Your task to perform on an android device: Open maps Image 0: 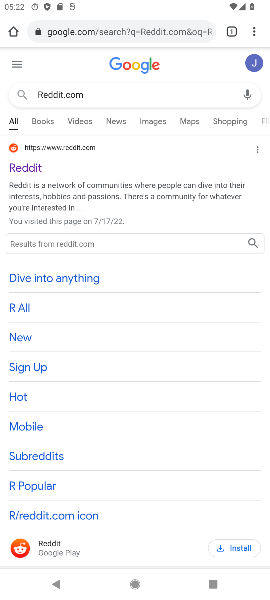
Step 0: press home button
Your task to perform on an android device: Open maps Image 1: 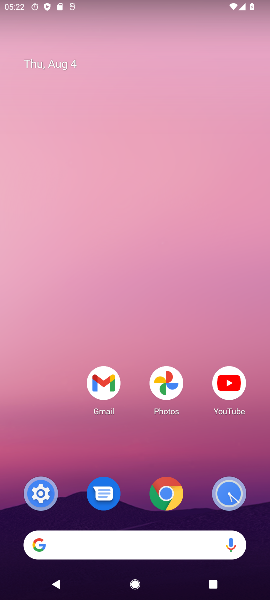
Step 1: drag from (39, 549) to (107, 242)
Your task to perform on an android device: Open maps Image 2: 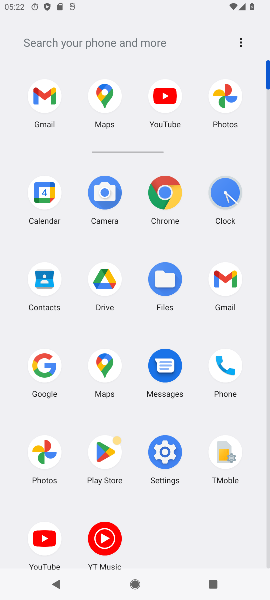
Step 2: click (99, 360)
Your task to perform on an android device: Open maps Image 3: 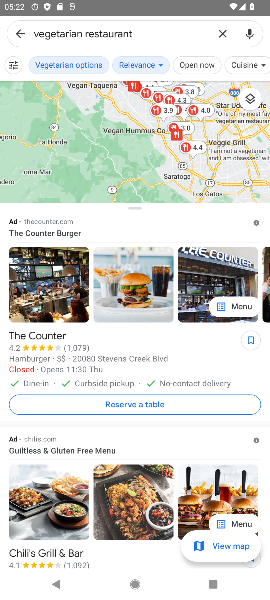
Step 3: click (220, 34)
Your task to perform on an android device: Open maps Image 4: 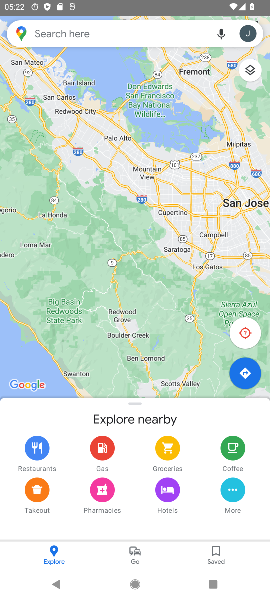
Step 4: task complete